Your task to perform on an android device: Open location settings Image 0: 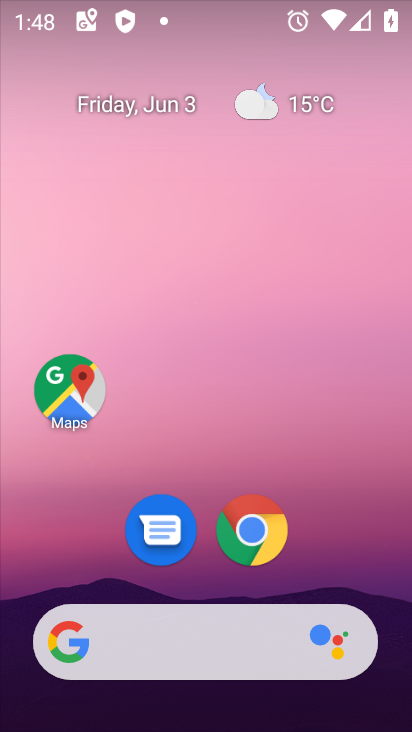
Step 0: drag from (359, 552) to (359, 72)
Your task to perform on an android device: Open location settings Image 1: 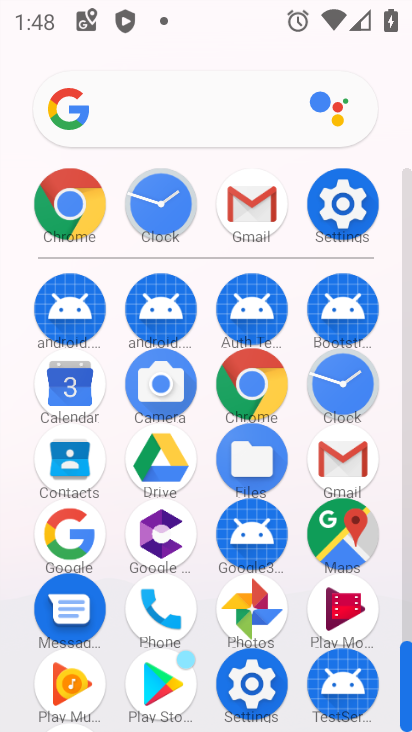
Step 1: click (343, 199)
Your task to perform on an android device: Open location settings Image 2: 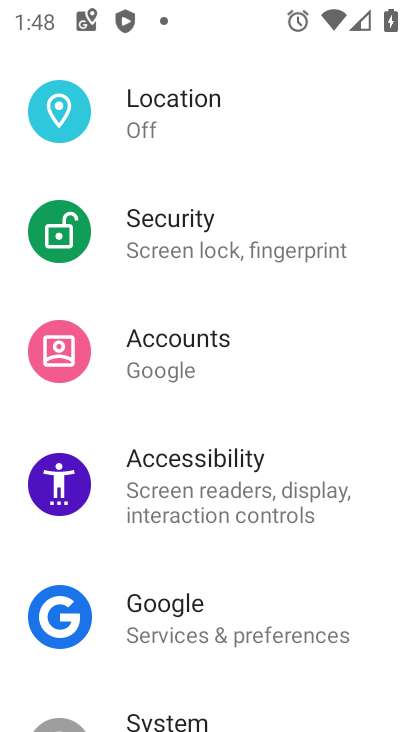
Step 2: click (245, 108)
Your task to perform on an android device: Open location settings Image 3: 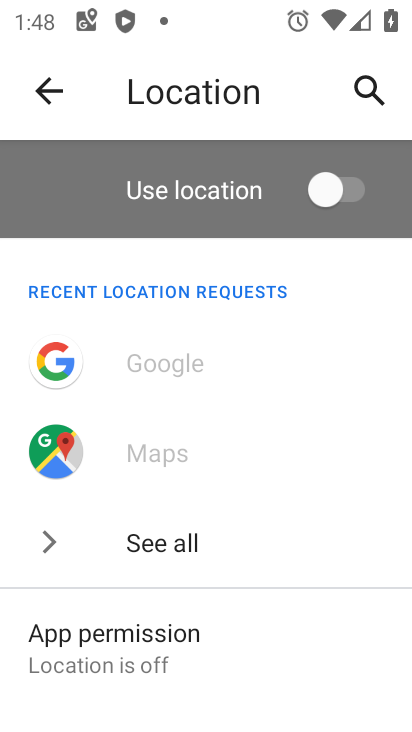
Step 3: task complete